Your task to perform on an android device: toggle javascript in the chrome app Image 0: 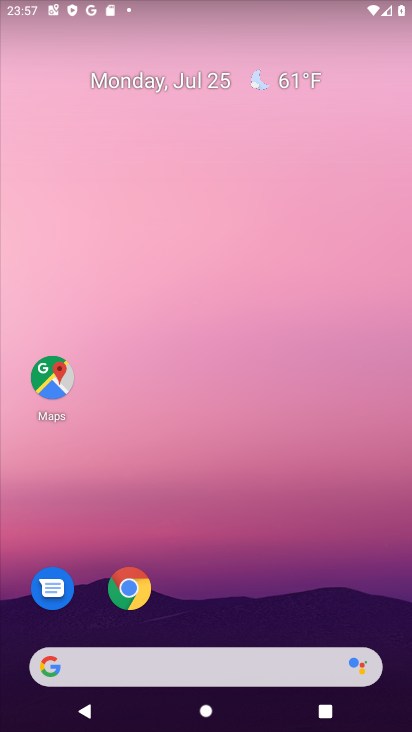
Step 0: click (128, 582)
Your task to perform on an android device: toggle javascript in the chrome app Image 1: 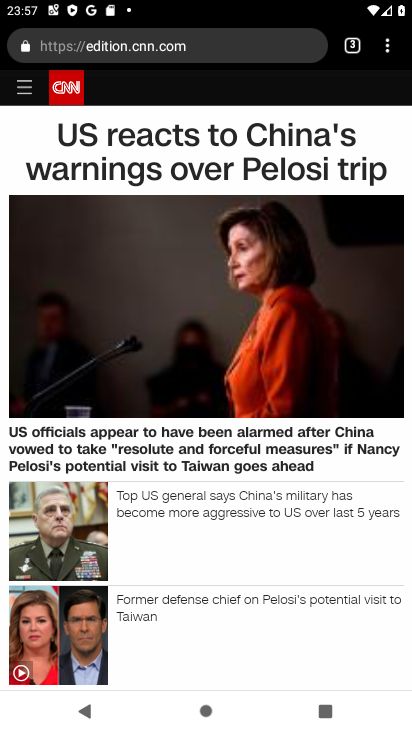
Step 1: click (388, 48)
Your task to perform on an android device: toggle javascript in the chrome app Image 2: 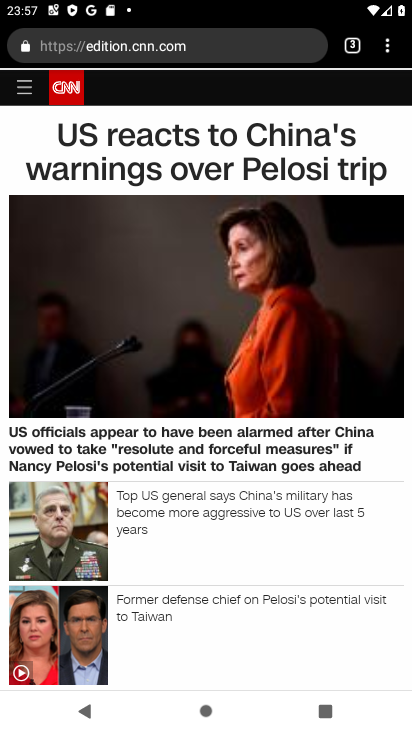
Step 2: click (388, 45)
Your task to perform on an android device: toggle javascript in the chrome app Image 3: 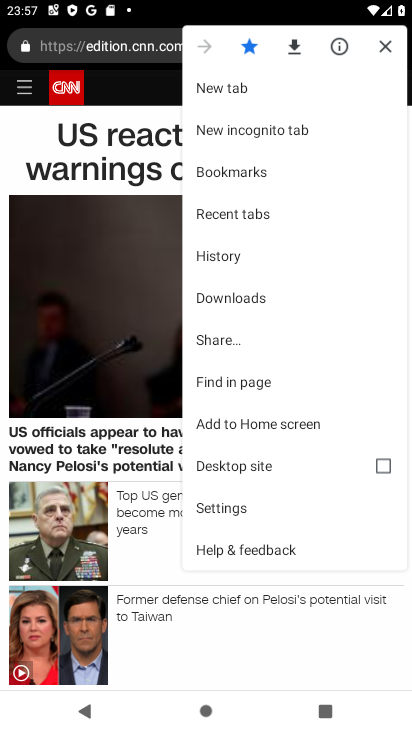
Step 3: click (256, 504)
Your task to perform on an android device: toggle javascript in the chrome app Image 4: 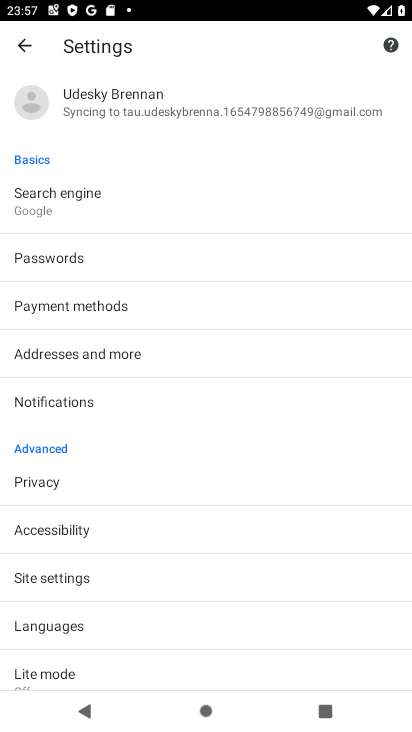
Step 4: click (112, 571)
Your task to perform on an android device: toggle javascript in the chrome app Image 5: 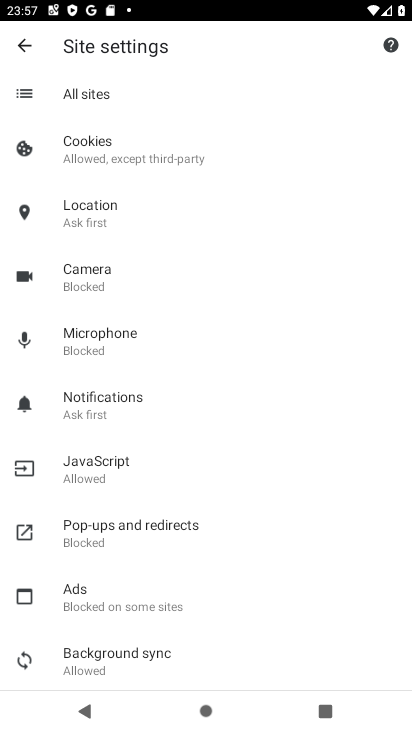
Step 5: click (156, 463)
Your task to perform on an android device: toggle javascript in the chrome app Image 6: 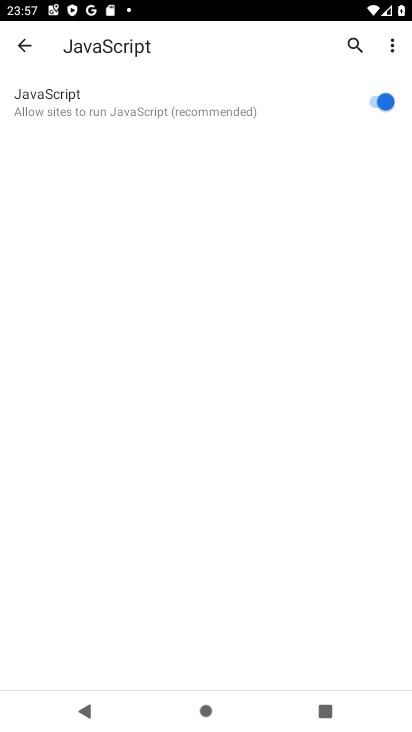
Step 6: click (379, 94)
Your task to perform on an android device: toggle javascript in the chrome app Image 7: 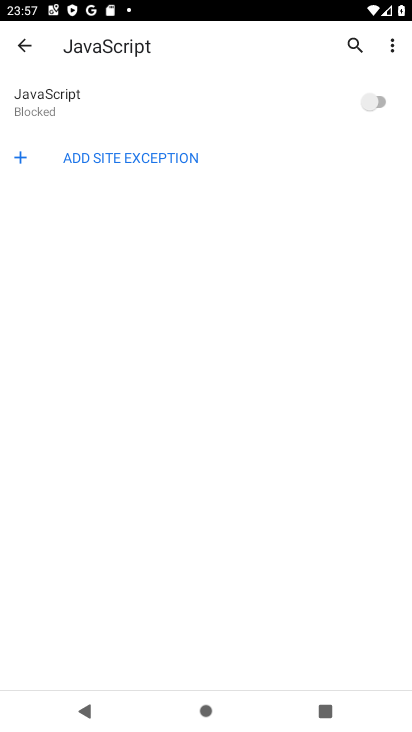
Step 7: task complete